Your task to perform on an android device: Open battery settings Image 0: 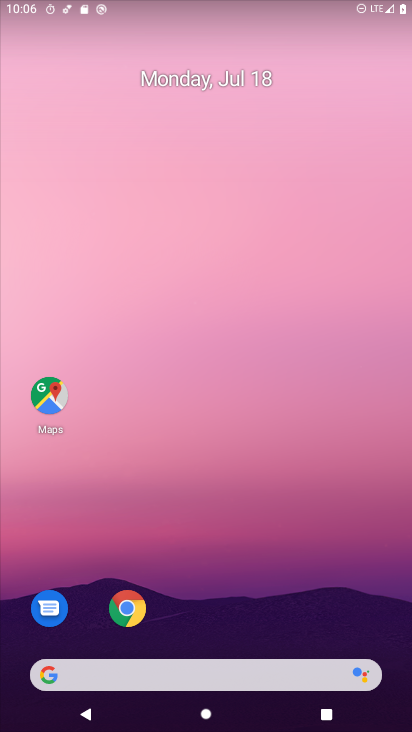
Step 0: drag from (203, 260) to (269, 85)
Your task to perform on an android device: Open battery settings Image 1: 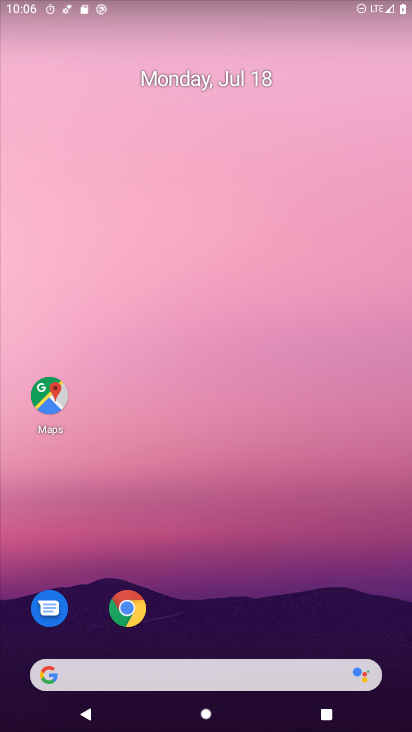
Step 1: drag from (188, 594) to (205, 187)
Your task to perform on an android device: Open battery settings Image 2: 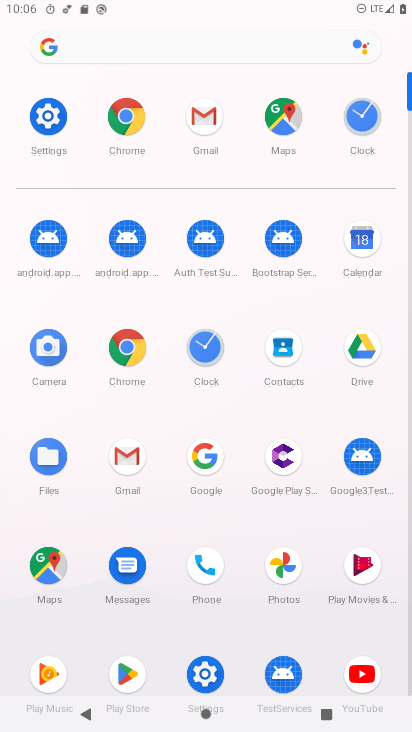
Step 2: click (51, 121)
Your task to perform on an android device: Open battery settings Image 3: 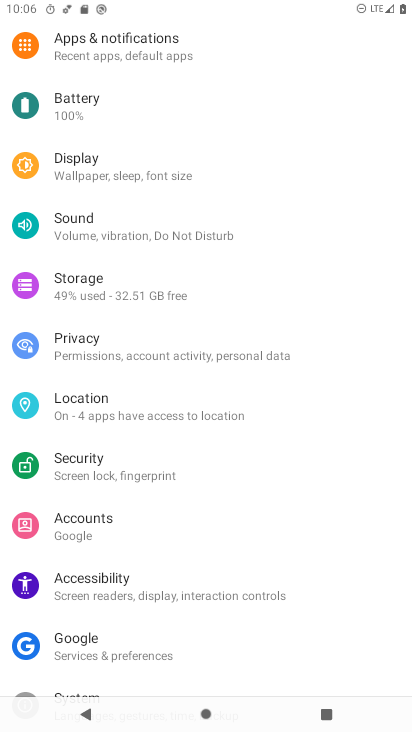
Step 3: click (69, 117)
Your task to perform on an android device: Open battery settings Image 4: 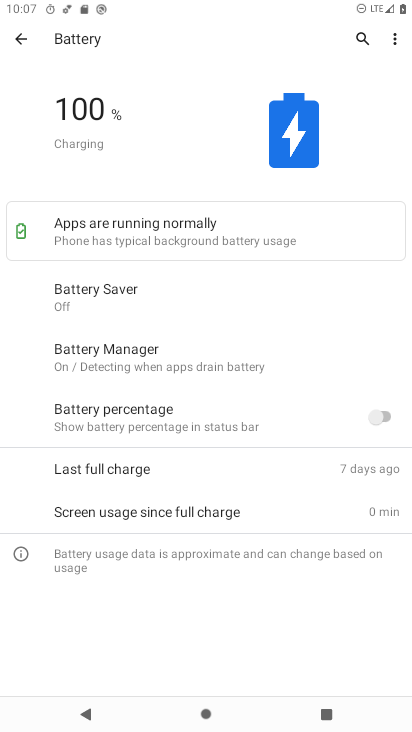
Step 4: task complete